Your task to perform on an android device: Search for the best 4K TV Image 0: 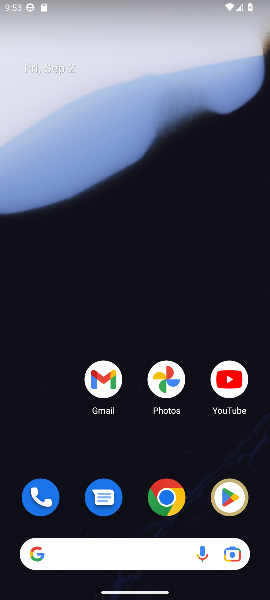
Step 0: drag from (130, 259) to (126, 86)
Your task to perform on an android device: Search for the best 4K TV Image 1: 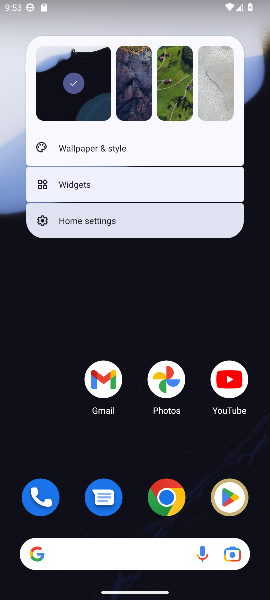
Step 1: drag from (137, 507) to (86, 127)
Your task to perform on an android device: Search for the best 4K TV Image 2: 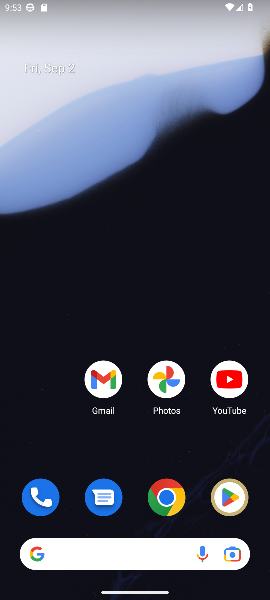
Step 2: click (139, 526)
Your task to perform on an android device: Search for the best 4K TV Image 3: 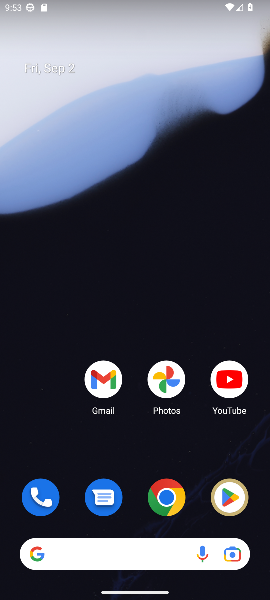
Step 3: drag from (130, 364) to (129, 166)
Your task to perform on an android device: Search for the best 4K TV Image 4: 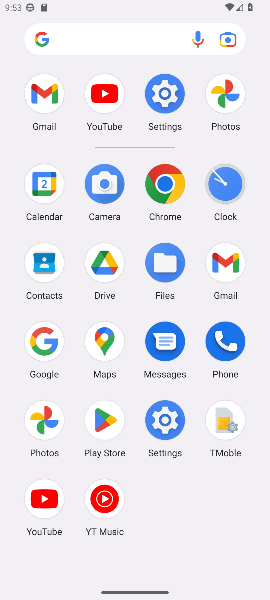
Step 4: click (50, 345)
Your task to perform on an android device: Search for the best 4K TV Image 5: 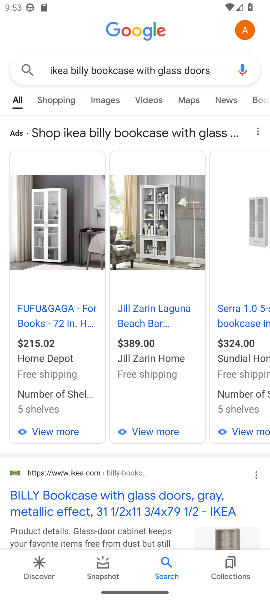
Step 5: click (221, 70)
Your task to perform on an android device: Search for the best 4K TV Image 6: 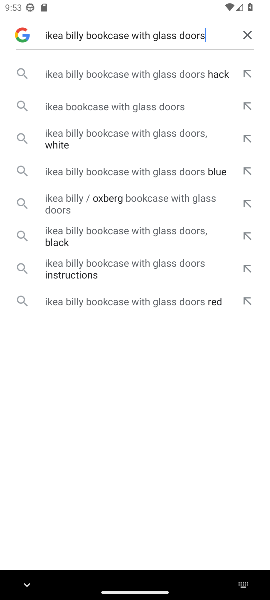
Step 6: click (246, 32)
Your task to perform on an android device: Search for the best 4K TV Image 7: 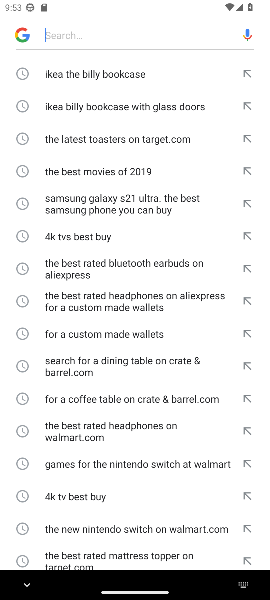
Step 7: type "custom art" on Etsy"
Your task to perform on an android device: Search for the best 4K TV Image 8: 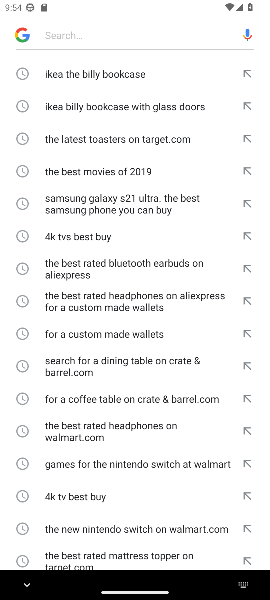
Step 8: type "custom art" on Etsy"
Your task to perform on an android device: Search for the best 4K TV Image 9: 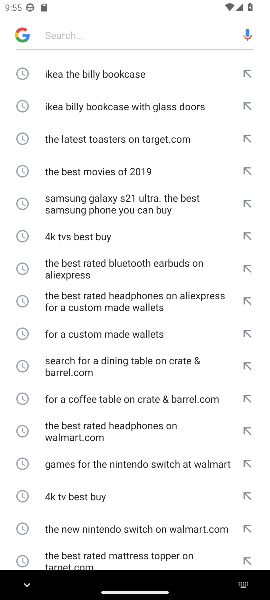
Step 9: press home button
Your task to perform on an android device: Search for the best 4K TV Image 10: 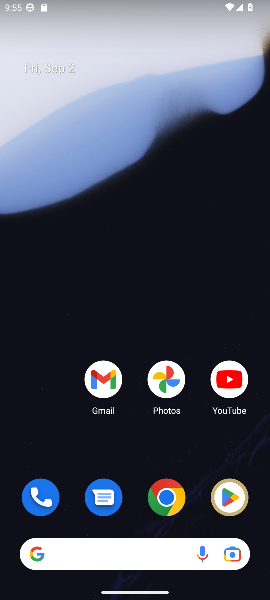
Step 10: drag from (126, 517) to (111, 118)
Your task to perform on an android device: Search for the best 4K TV Image 11: 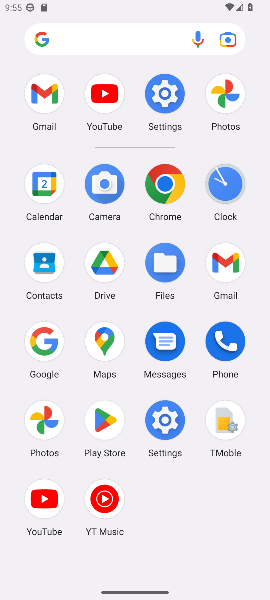
Step 11: click (137, 401)
Your task to perform on an android device: Search for the best 4K TV Image 12: 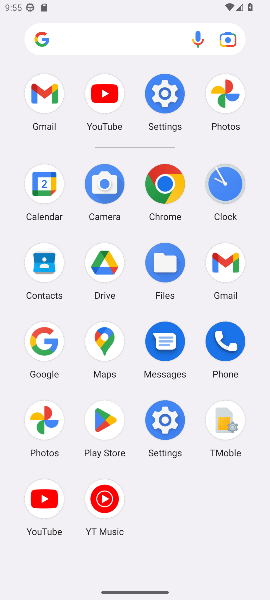
Step 12: click (44, 339)
Your task to perform on an android device: Search for the best 4K TV Image 13: 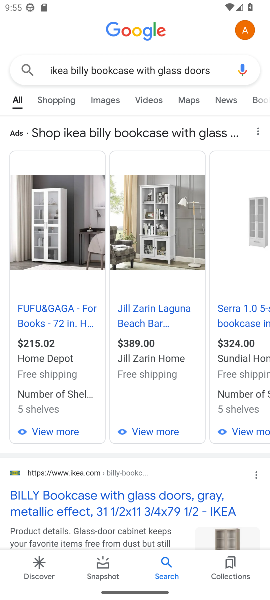
Step 13: click (212, 66)
Your task to perform on an android device: Search for the best 4K TV Image 14: 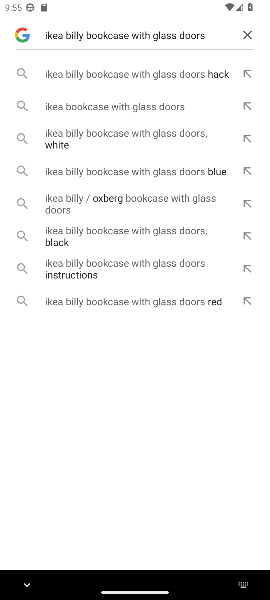
Step 14: click (249, 30)
Your task to perform on an android device: Search for the best 4K TV Image 15: 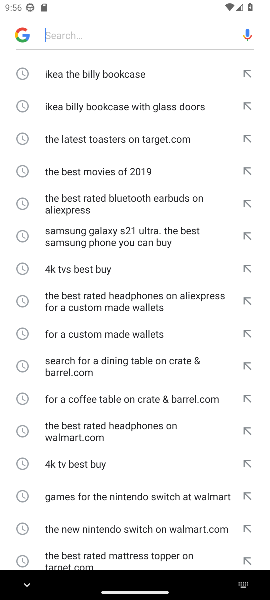
Step 15: type "the best 4K TV"
Your task to perform on an android device: Search for the best 4K TV Image 16: 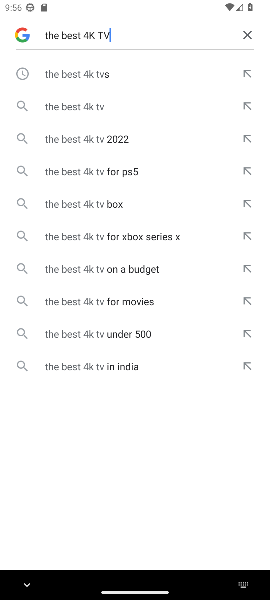
Step 16: click (104, 73)
Your task to perform on an android device: Search for the best 4K TV Image 17: 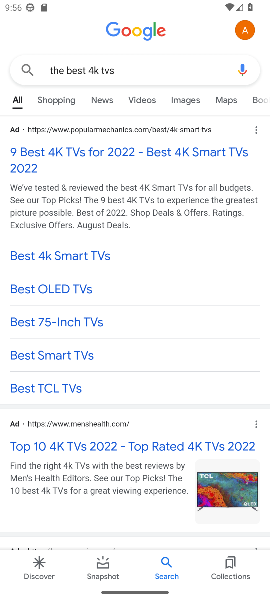
Step 17: task complete